Your task to perform on an android device: Open Google Chrome Image 0: 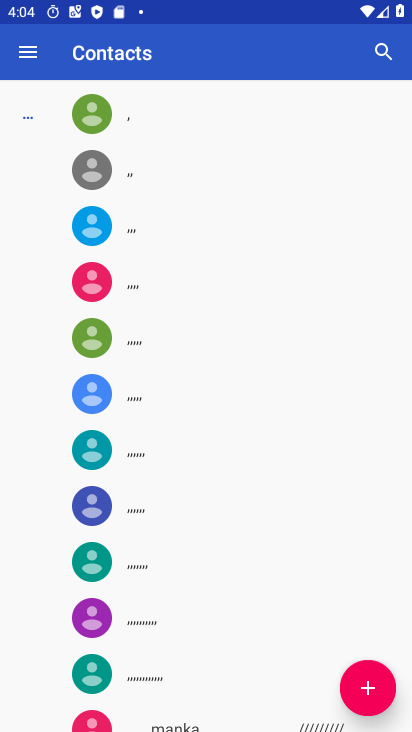
Step 0: press home button
Your task to perform on an android device: Open Google Chrome Image 1: 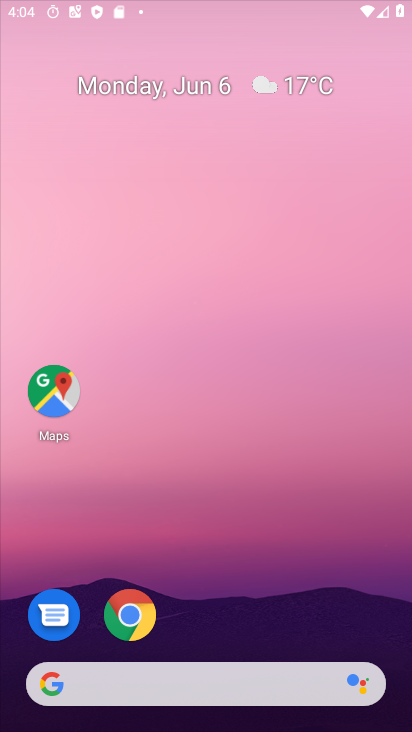
Step 1: drag from (306, 649) to (346, 11)
Your task to perform on an android device: Open Google Chrome Image 2: 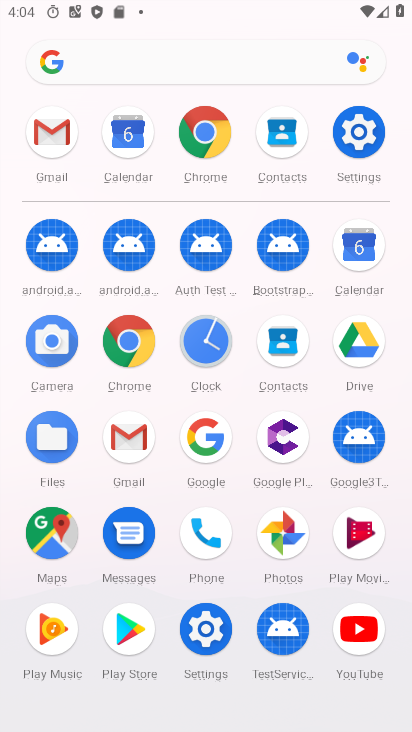
Step 2: click (144, 350)
Your task to perform on an android device: Open Google Chrome Image 3: 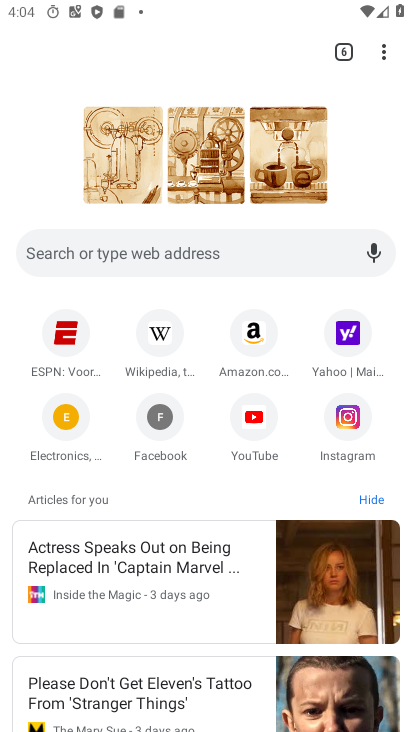
Step 3: task complete